Your task to perform on an android device: find photos in the google photos app Image 0: 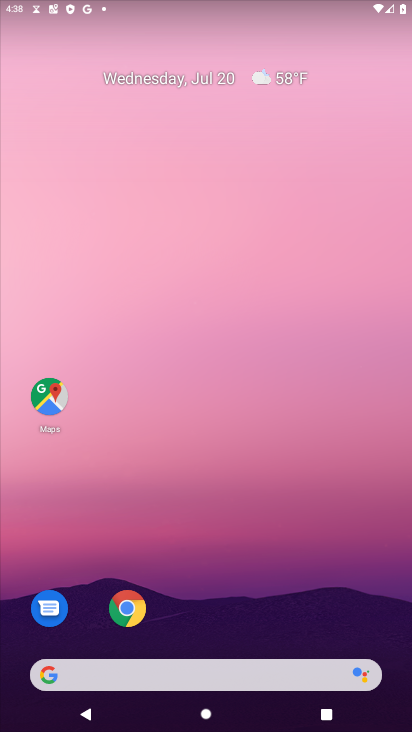
Step 0: drag from (141, 438) to (139, 101)
Your task to perform on an android device: find photos in the google photos app Image 1: 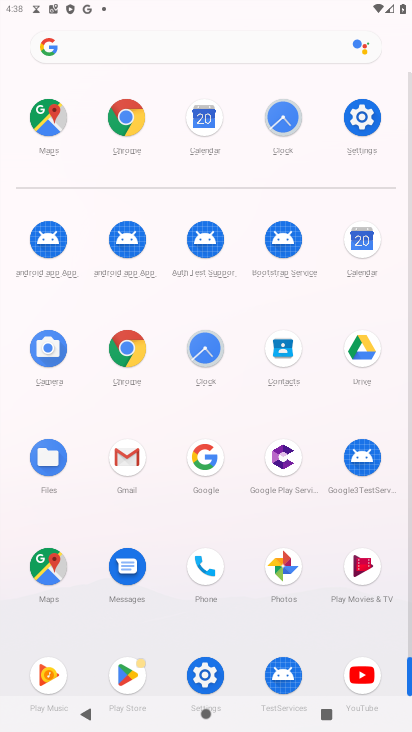
Step 1: click (281, 573)
Your task to perform on an android device: find photos in the google photos app Image 2: 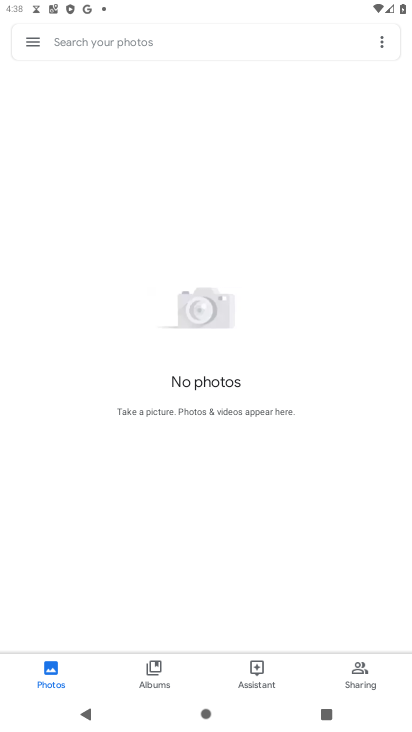
Step 2: task complete